Your task to perform on an android device: Open the phone app and click the voicemail tab. Image 0: 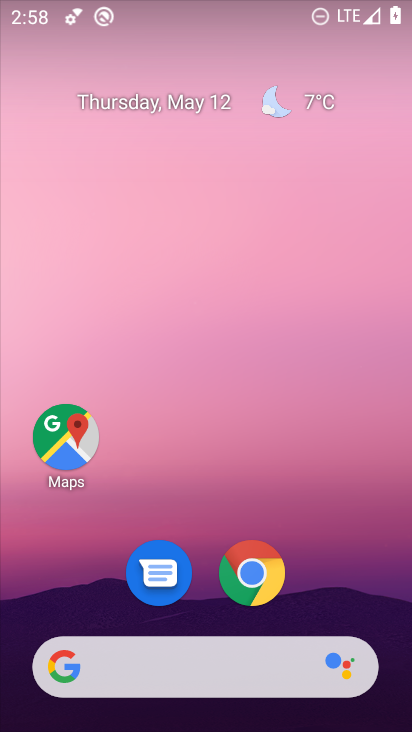
Step 0: drag from (284, 526) to (268, 62)
Your task to perform on an android device: Open the phone app and click the voicemail tab. Image 1: 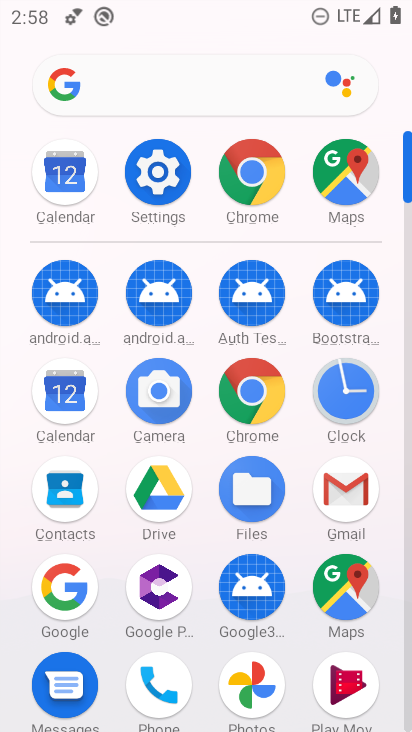
Step 1: drag from (290, 437) to (335, 57)
Your task to perform on an android device: Open the phone app and click the voicemail tab. Image 2: 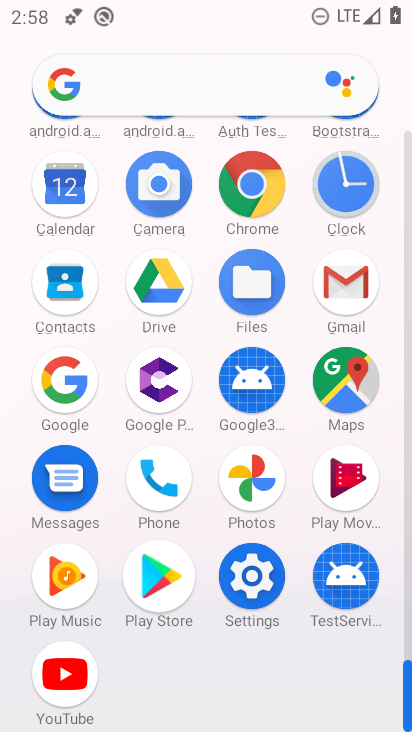
Step 2: click (153, 486)
Your task to perform on an android device: Open the phone app and click the voicemail tab. Image 3: 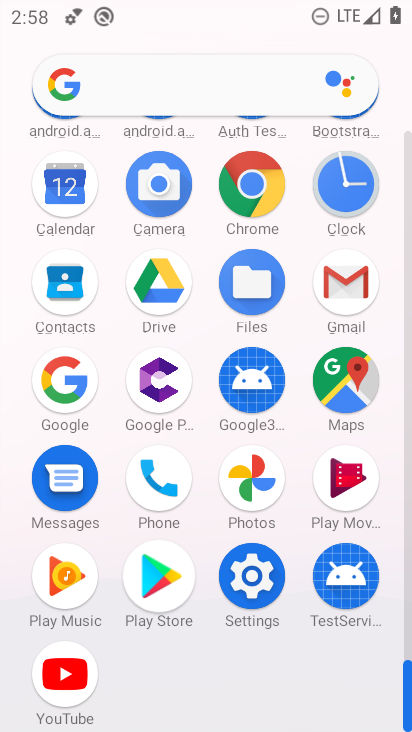
Step 3: click (154, 485)
Your task to perform on an android device: Open the phone app and click the voicemail tab. Image 4: 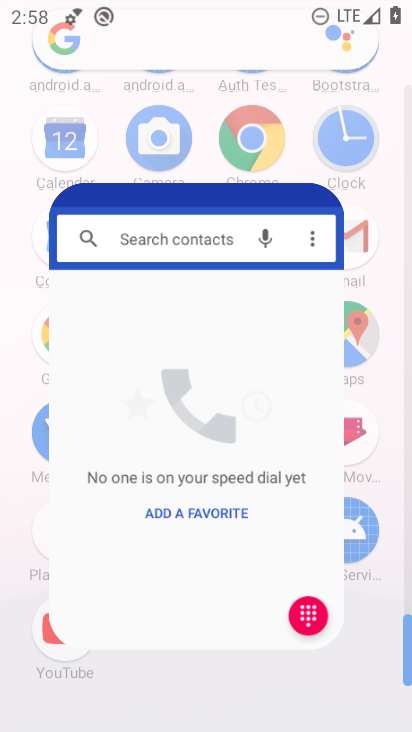
Step 4: click (155, 485)
Your task to perform on an android device: Open the phone app and click the voicemail tab. Image 5: 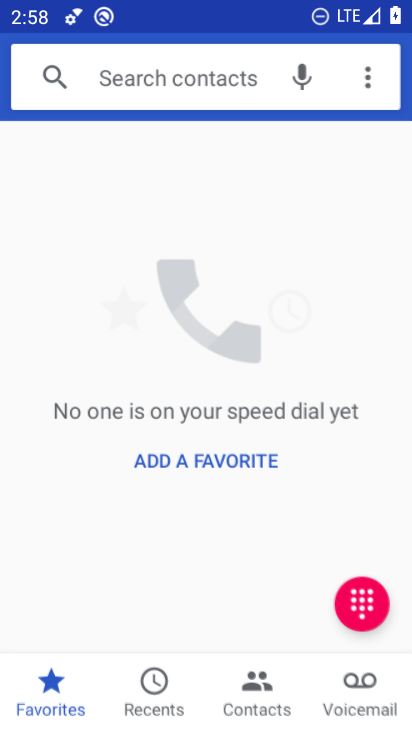
Step 5: click (155, 485)
Your task to perform on an android device: Open the phone app and click the voicemail tab. Image 6: 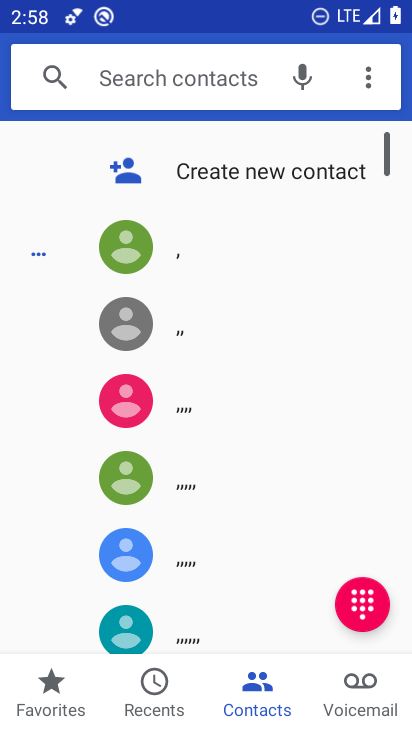
Step 6: click (372, 697)
Your task to perform on an android device: Open the phone app and click the voicemail tab. Image 7: 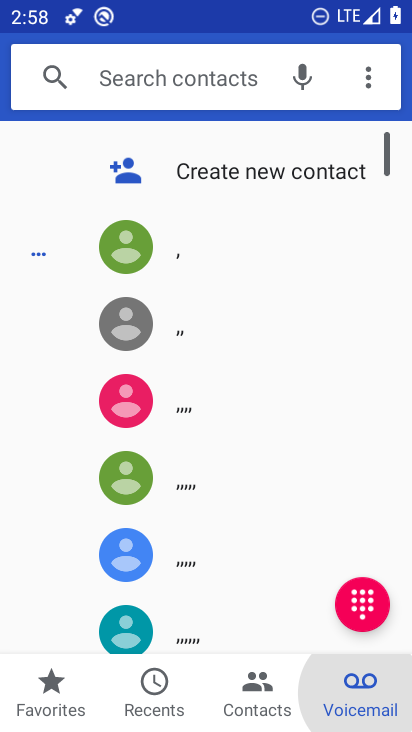
Step 7: click (372, 697)
Your task to perform on an android device: Open the phone app and click the voicemail tab. Image 8: 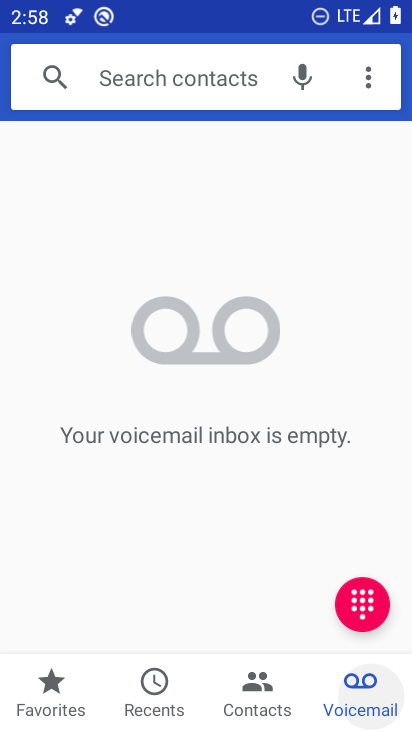
Step 8: click (372, 697)
Your task to perform on an android device: Open the phone app and click the voicemail tab. Image 9: 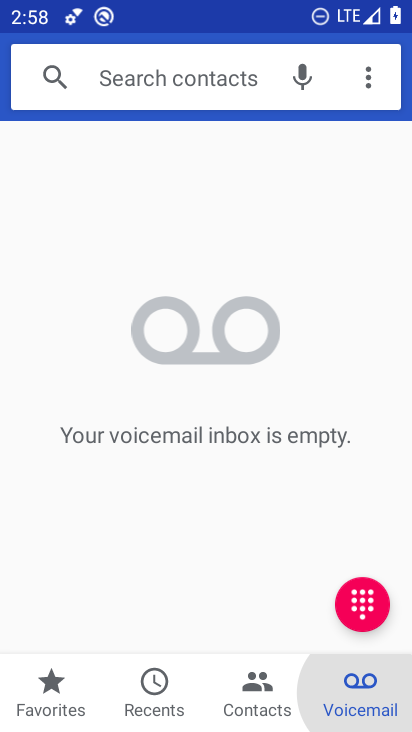
Step 9: click (372, 697)
Your task to perform on an android device: Open the phone app and click the voicemail tab. Image 10: 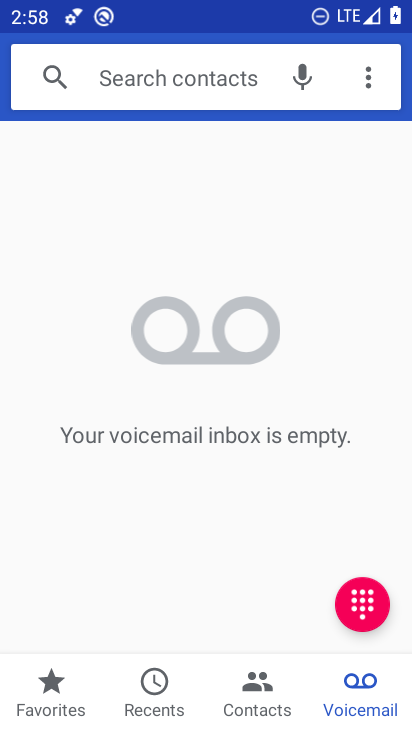
Step 10: task complete